Your task to perform on an android device: delete browsing data in the chrome app Image 0: 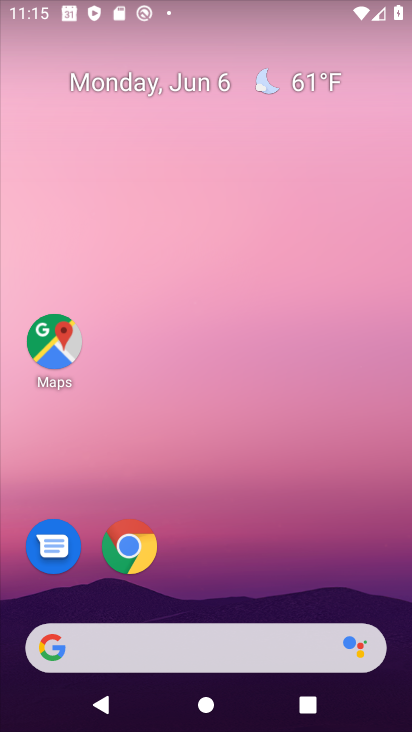
Step 0: click (117, 550)
Your task to perform on an android device: delete browsing data in the chrome app Image 1: 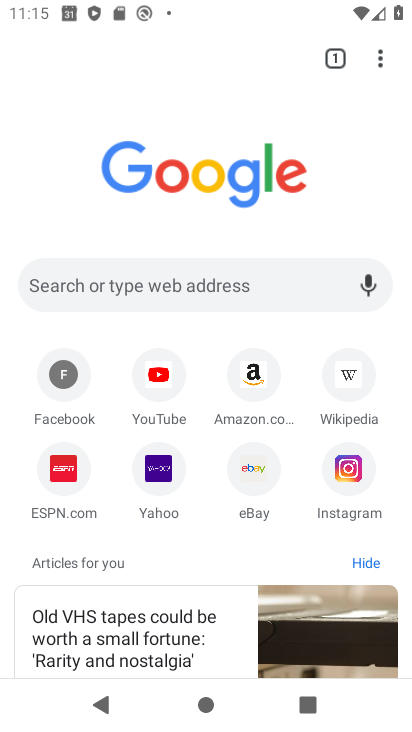
Step 1: task complete